Your task to perform on an android device: Open internet settings Image 0: 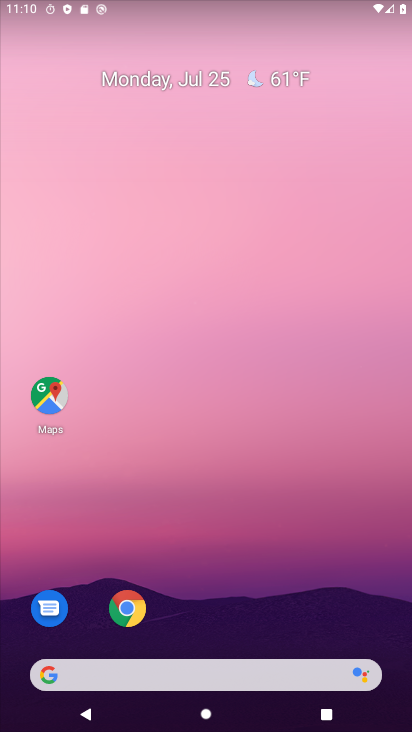
Step 0: drag from (227, 664) to (229, 0)
Your task to perform on an android device: Open internet settings Image 1: 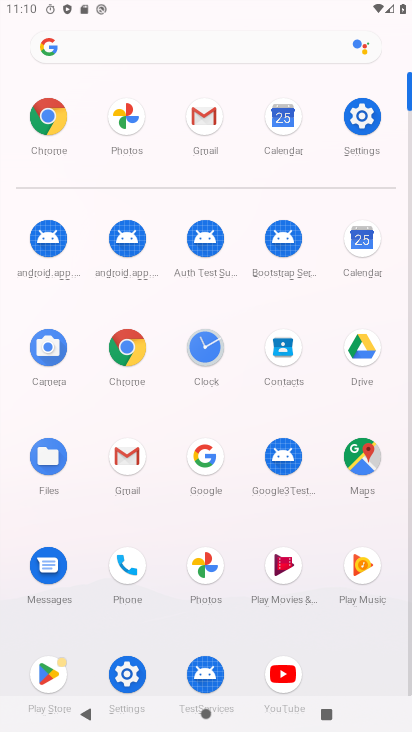
Step 1: click (376, 122)
Your task to perform on an android device: Open internet settings Image 2: 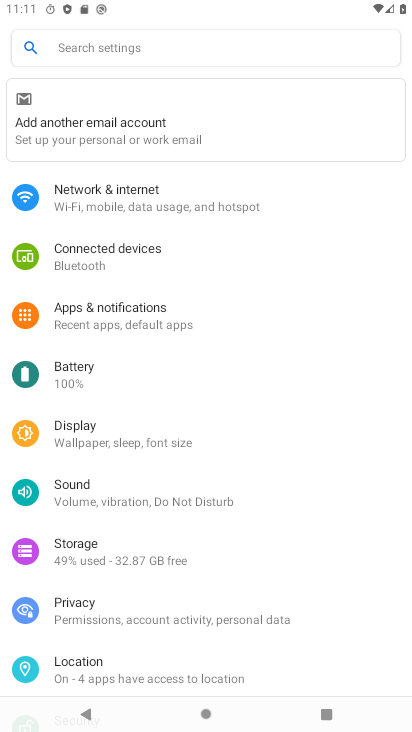
Step 2: click (95, 194)
Your task to perform on an android device: Open internet settings Image 3: 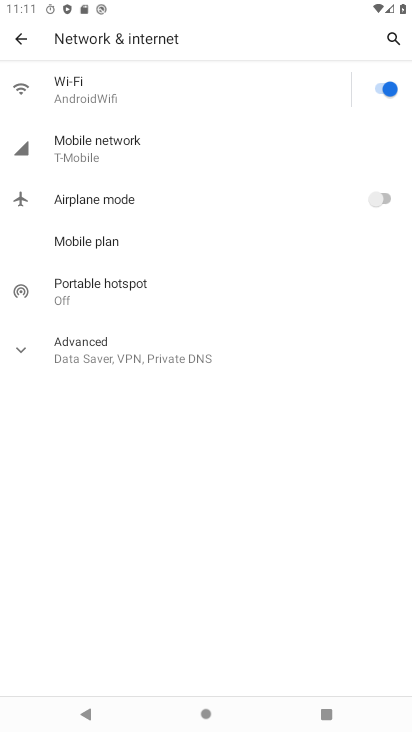
Step 3: click (98, 153)
Your task to perform on an android device: Open internet settings Image 4: 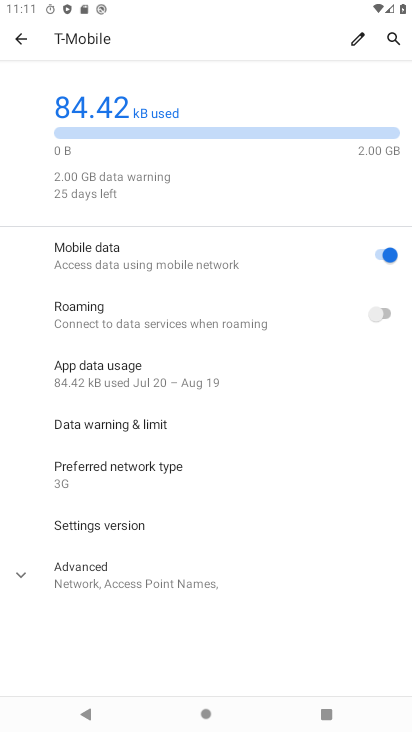
Step 4: task complete